Your task to perform on an android device: Open privacy settings Image 0: 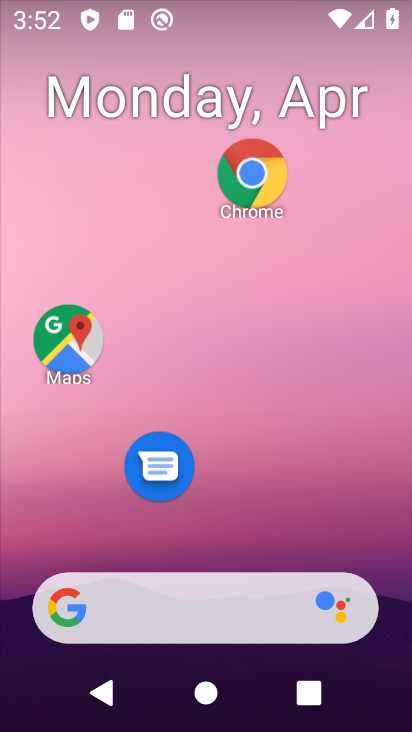
Step 0: click (257, 179)
Your task to perform on an android device: Open privacy settings Image 1: 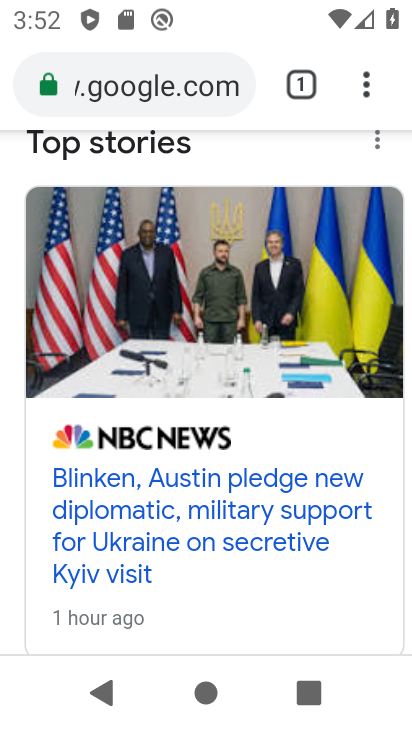
Step 1: click (372, 116)
Your task to perform on an android device: Open privacy settings Image 2: 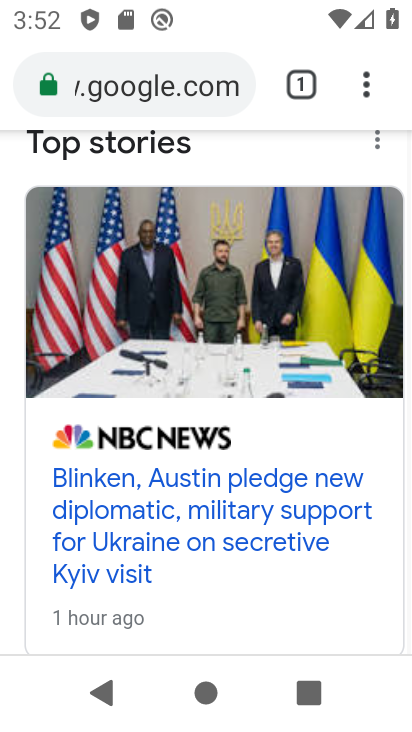
Step 2: drag from (371, 112) to (224, 508)
Your task to perform on an android device: Open privacy settings Image 3: 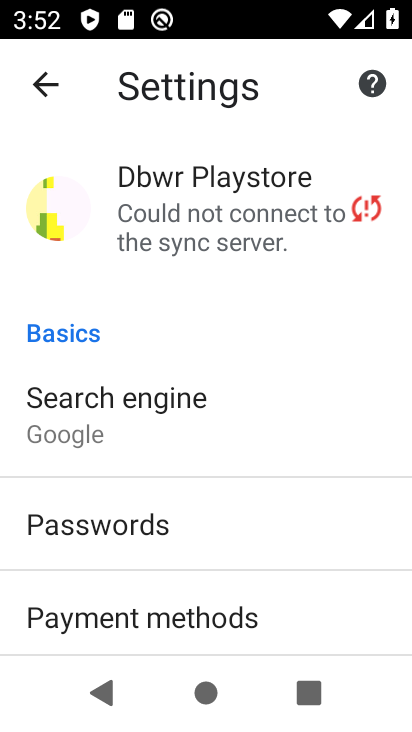
Step 3: drag from (284, 592) to (223, 215)
Your task to perform on an android device: Open privacy settings Image 4: 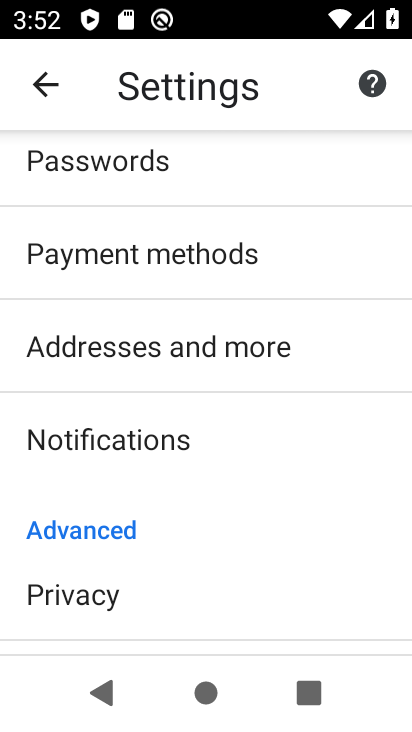
Step 4: click (256, 591)
Your task to perform on an android device: Open privacy settings Image 5: 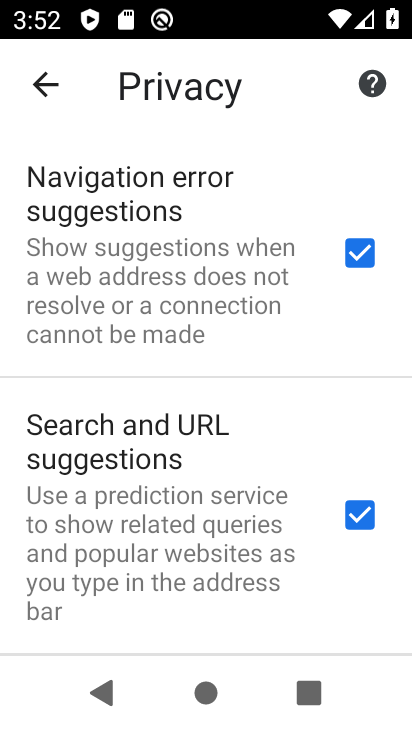
Step 5: task complete